Your task to perform on an android device: Check the news Image 0: 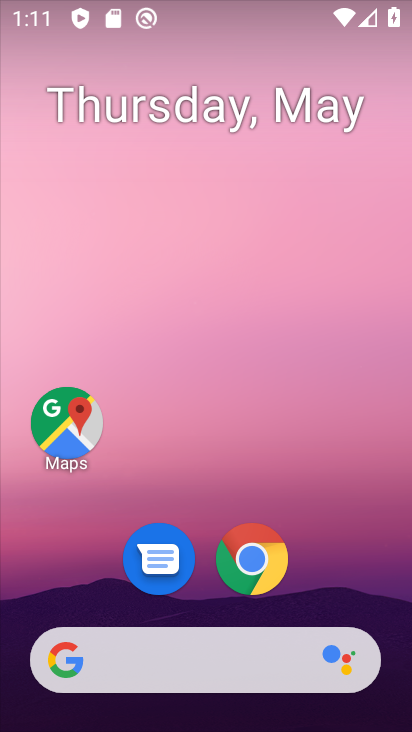
Step 0: drag from (4, 291) to (385, 249)
Your task to perform on an android device: Check the news Image 1: 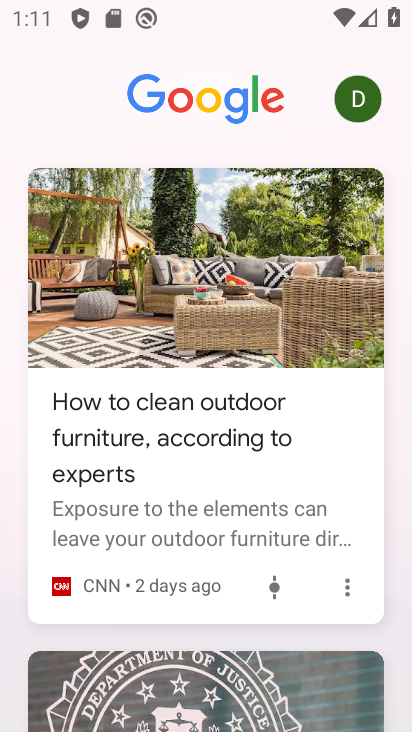
Step 1: task complete